Your task to perform on an android device: open app "ColorNote Notepad Notes" Image 0: 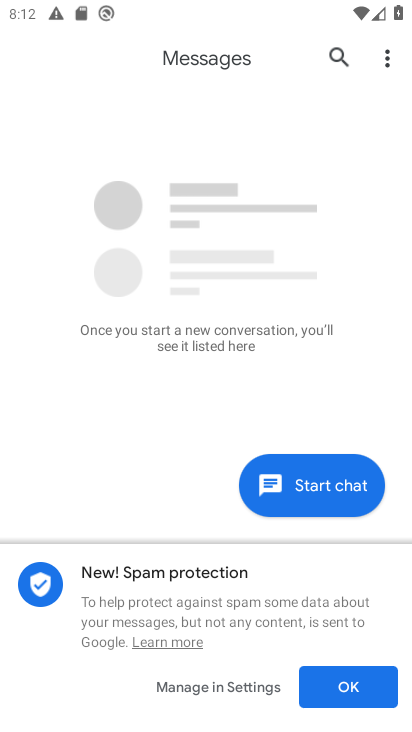
Step 0: press home button
Your task to perform on an android device: open app "ColorNote Notepad Notes" Image 1: 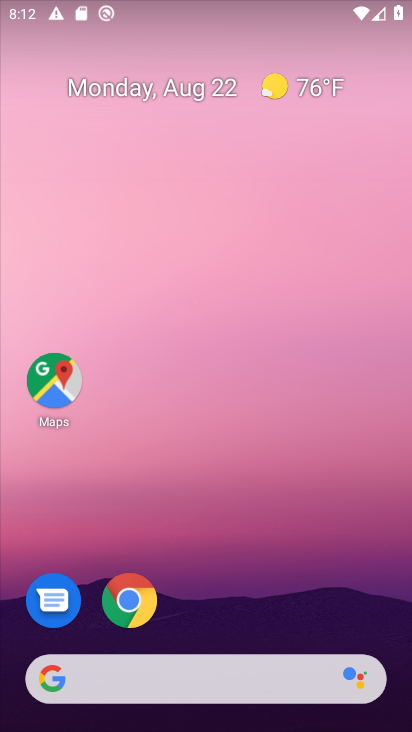
Step 1: drag from (222, 601) to (223, 124)
Your task to perform on an android device: open app "ColorNote Notepad Notes" Image 2: 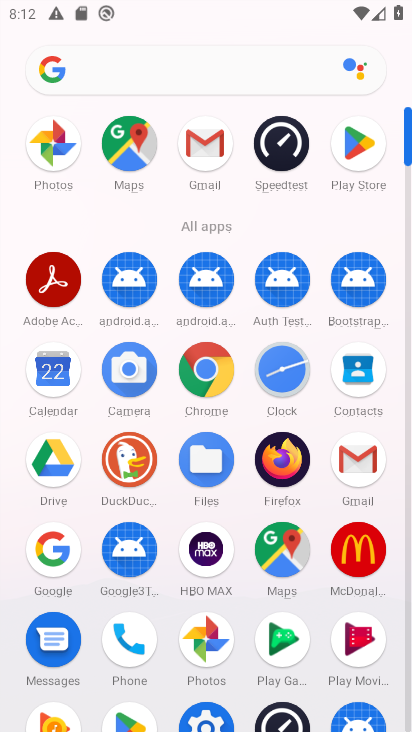
Step 2: click (337, 138)
Your task to perform on an android device: open app "ColorNote Notepad Notes" Image 3: 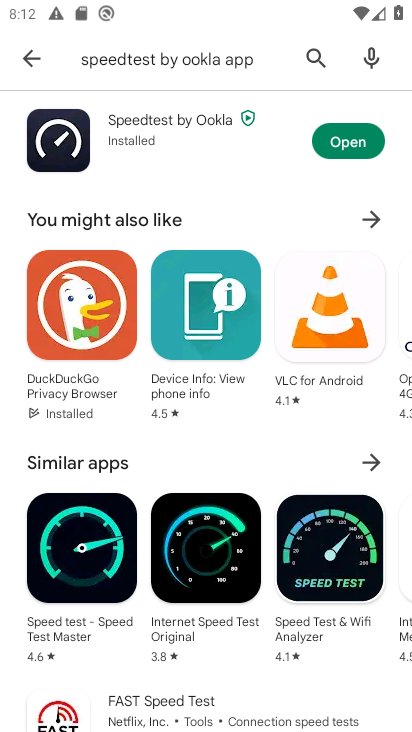
Step 3: click (308, 60)
Your task to perform on an android device: open app "ColorNote Notepad Notes" Image 4: 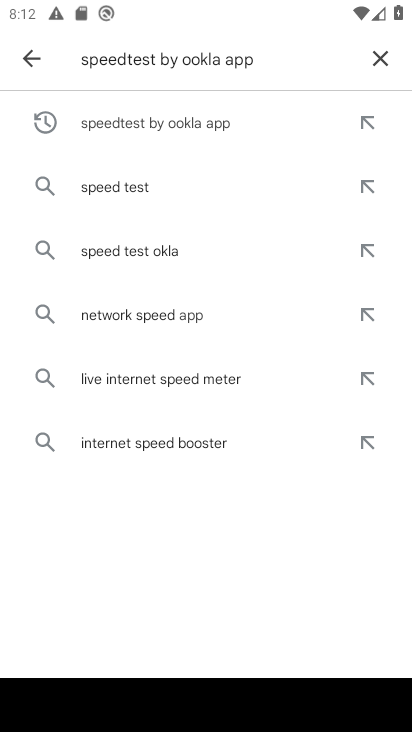
Step 4: click (371, 52)
Your task to perform on an android device: open app "ColorNote Notepad Notes" Image 5: 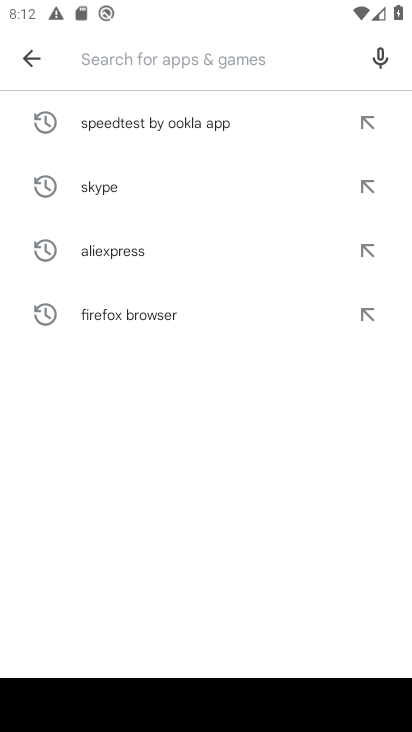
Step 5: type "ColorNote Notepad Notes"
Your task to perform on an android device: open app "ColorNote Notepad Notes" Image 6: 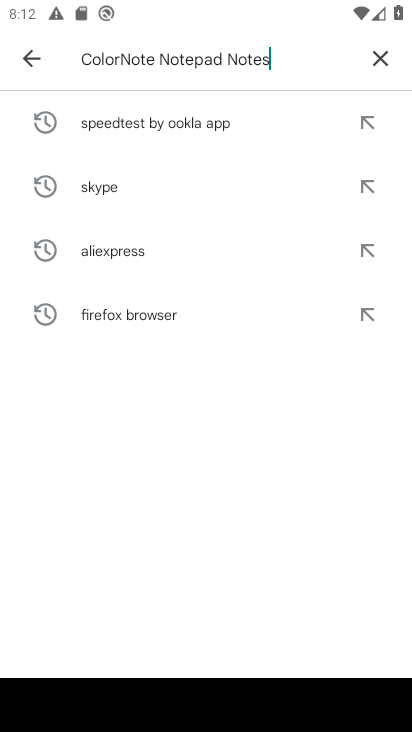
Step 6: type ""
Your task to perform on an android device: open app "ColorNote Notepad Notes" Image 7: 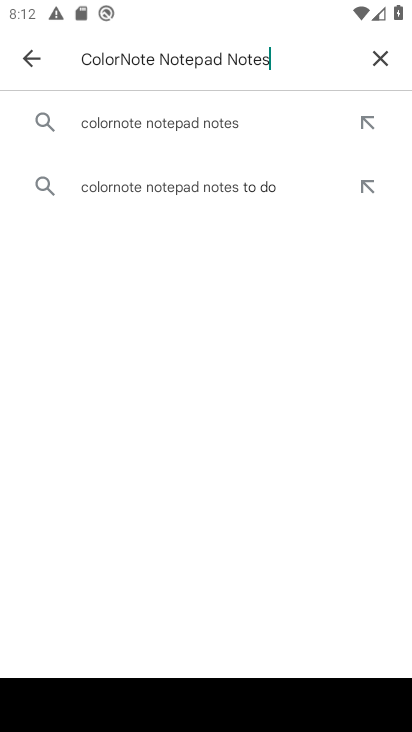
Step 7: click (257, 122)
Your task to perform on an android device: open app "ColorNote Notepad Notes" Image 8: 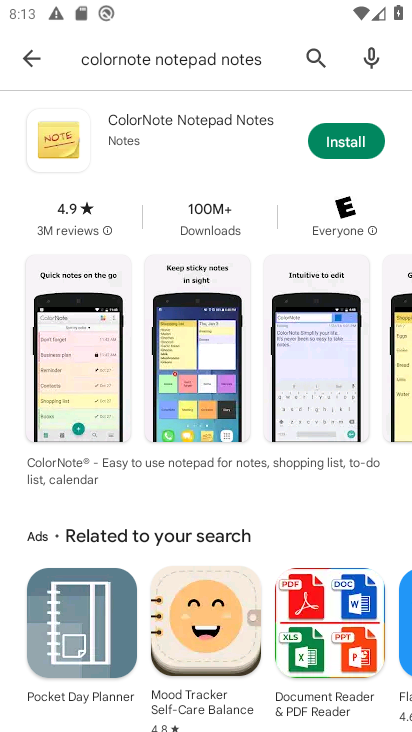
Step 8: task complete